Your task to perform on an android device: turn off location history Image 0: 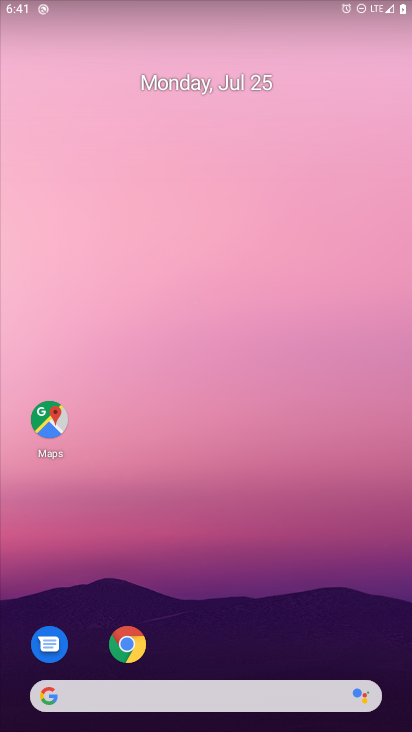
Step 0: press home button
Your task to perform on an android device: turn off location history Image 1: 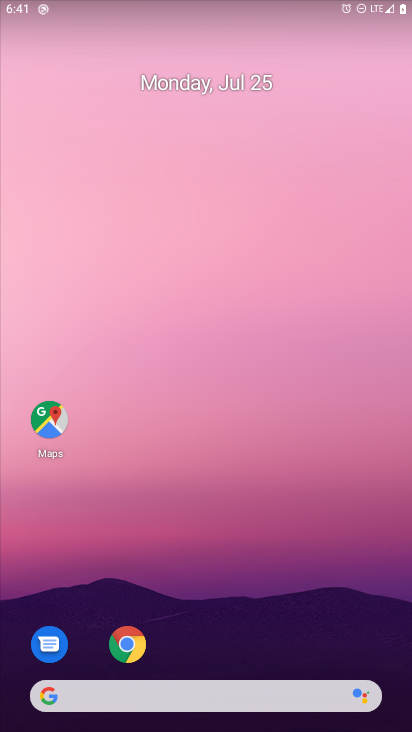
Step 1: drag from (251, 659) to (158, 115)
Your task to perform on an android device: turn off location history Image 2: 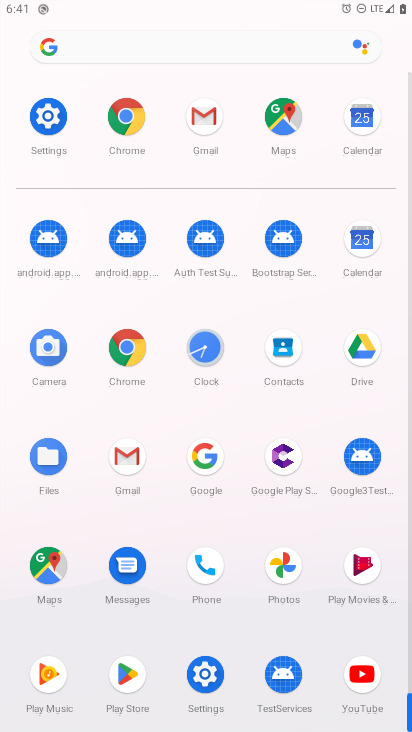
Step 2: click (52, 124)
Your task to perform on an android device: turn off location history Image 3: 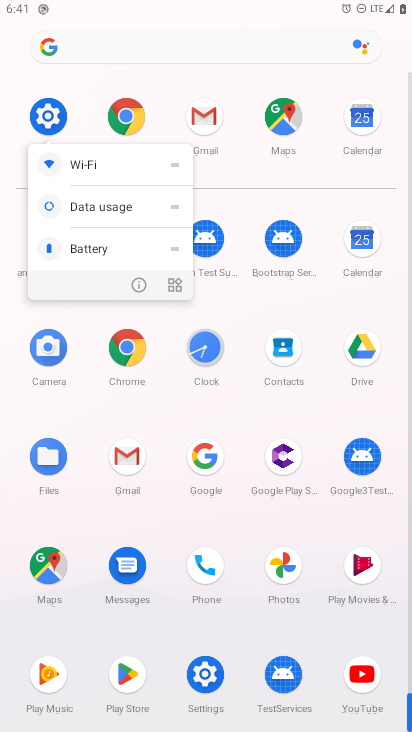
Step 3: click (52, 124)
Your task to perform on an android device: turn off location history Image 4: 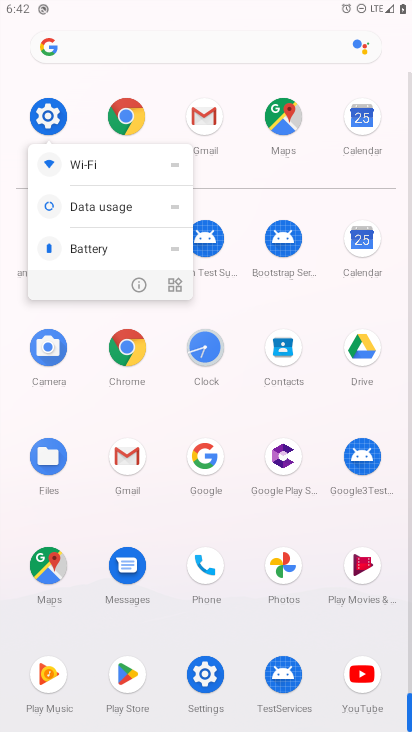
Step 4: click (51, 121)
Your task to perform on an android device: turn off location history Image 5: 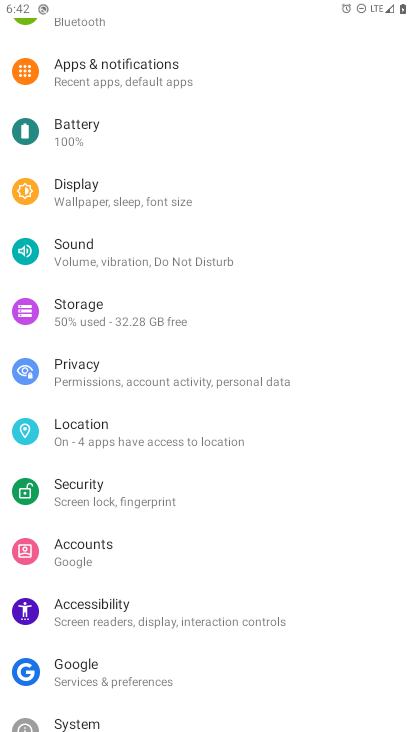
Step 5: click (70, 419)
Your task to perform on an android device: turn off location history Image 6: 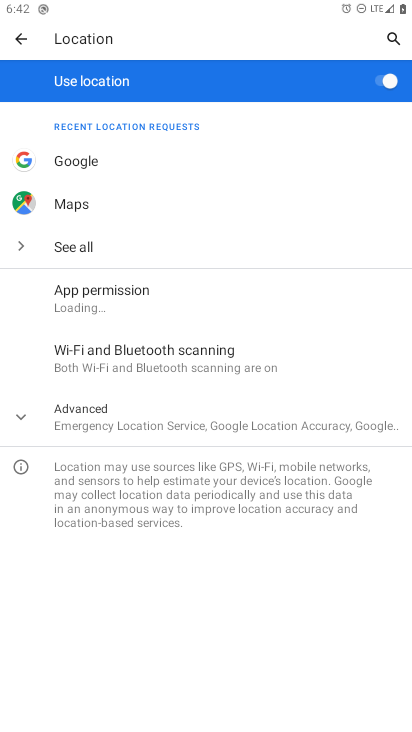
Step 6: click (99, 428)
Your task to perform on an android device: turn off location history Image 7: 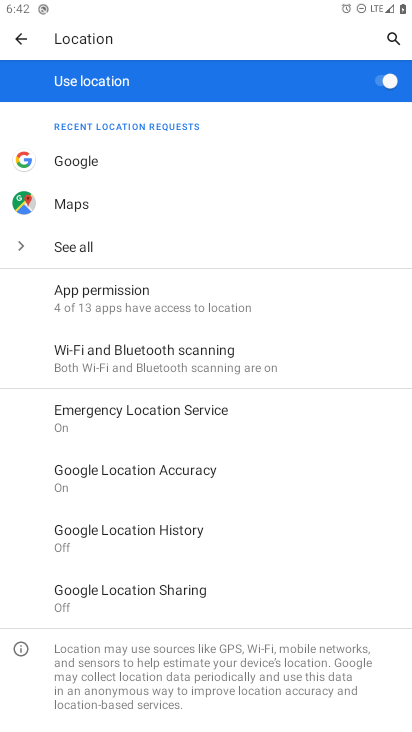
Step 7: click (132, 535)
Your task to perform on an android device: turn off location history Image 8: 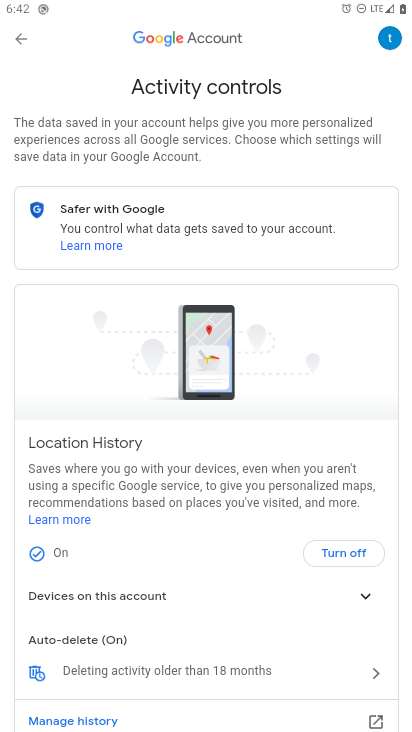
Step 8: click (339, 554)
Your task to perform on an android device: turn off location history Image 9: 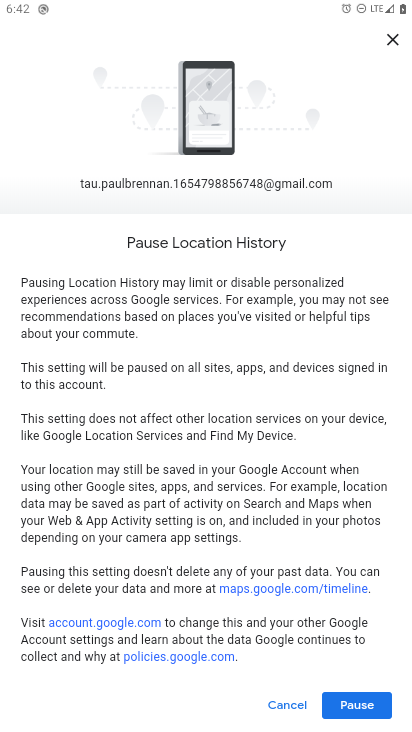
Step 9: click (367, 708)
Your task to perform on an android device: turn off location history Image 10: 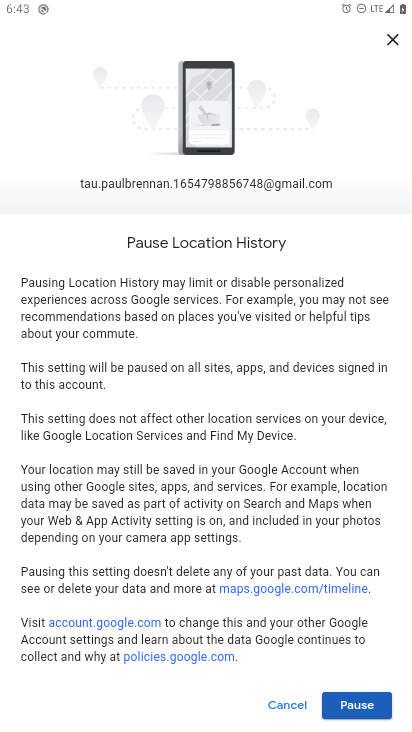
Step 10: click (360, 710)
Your task to perform on an android device: turn off location history Image 11: 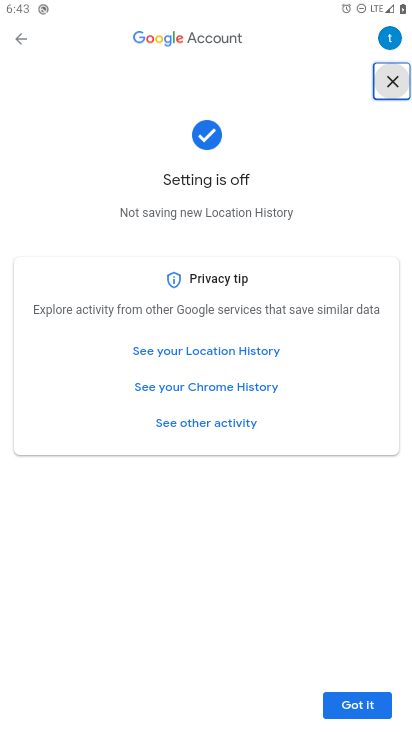
Step 11: click (360, 710)
Your task to perform on an android device: turn off location history Image 12: 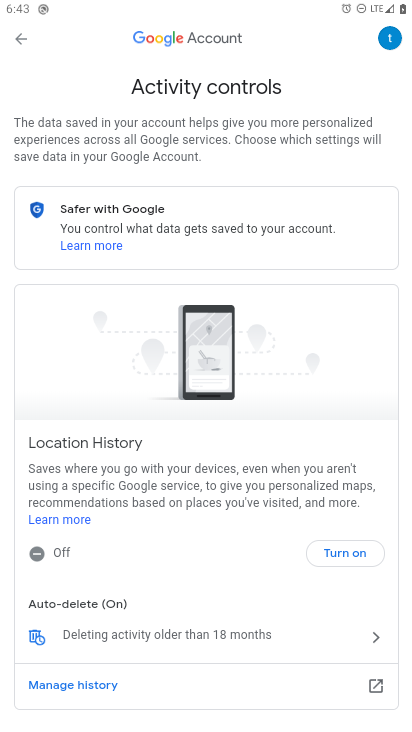
Step 12: task complete